Your task to perform on an android device: toggle location history Image 0: 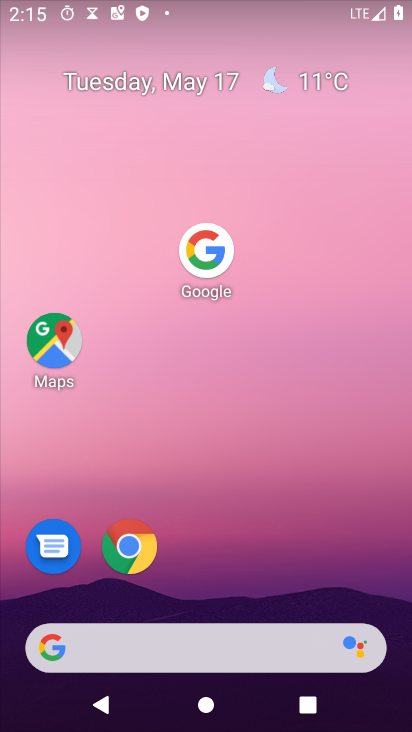
Step 0: press home button
Your task to perform on an android device: toggle location history Image 1: 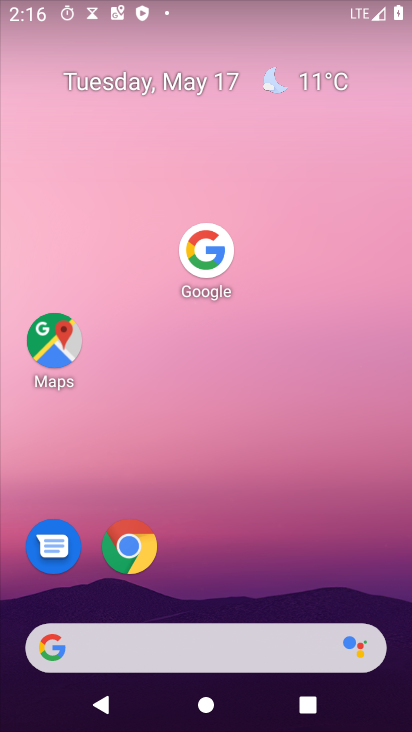
Step 1: click (53, 354)
Your task to perform on an android device: toggle location history Image 2: 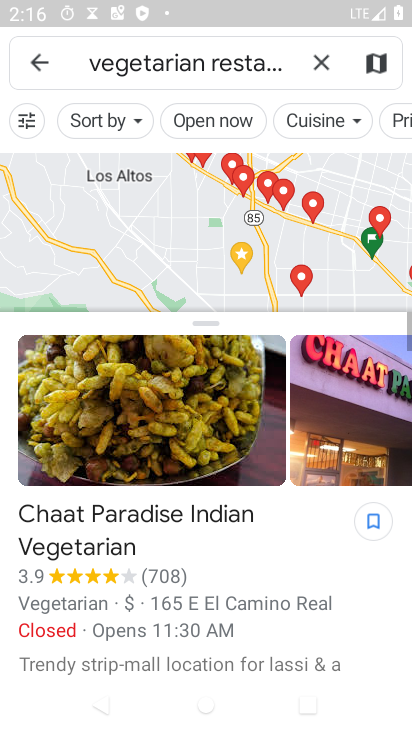
Step 2: click (43, 59)
Your task to perform on an android device: toggle location history Image 3: 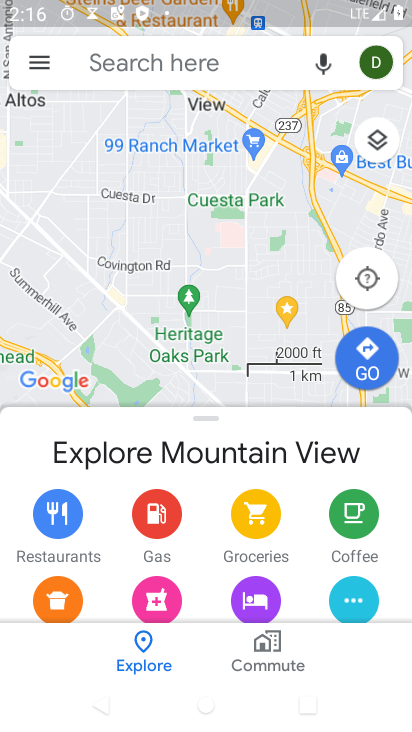
Step 3: click (38, 59)
Your task to perform on an android device: toggle location history Image 4: 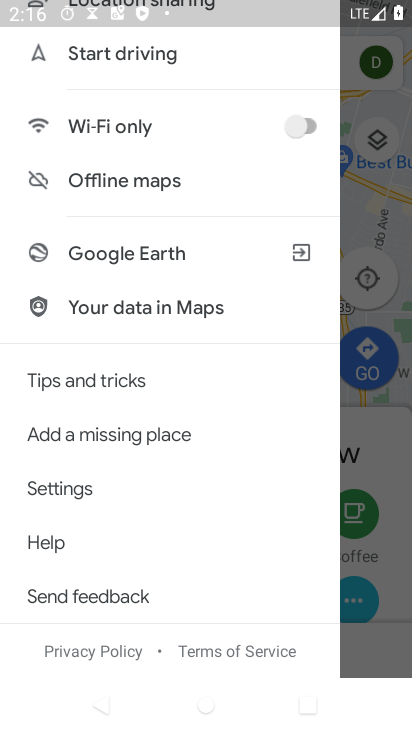
Step 4: drag from (220, 123) to (202, 594)
Your task to perform on an android device: toggle location history Image 5: 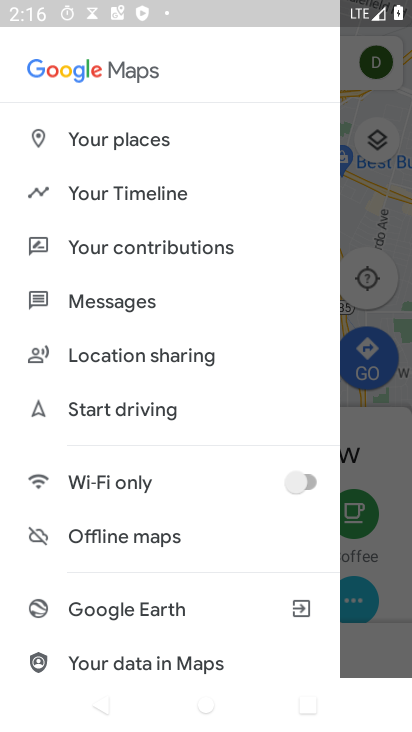
Step 5: click (115, 194)
Your task to perform on an android device: toggle location history Image 6: 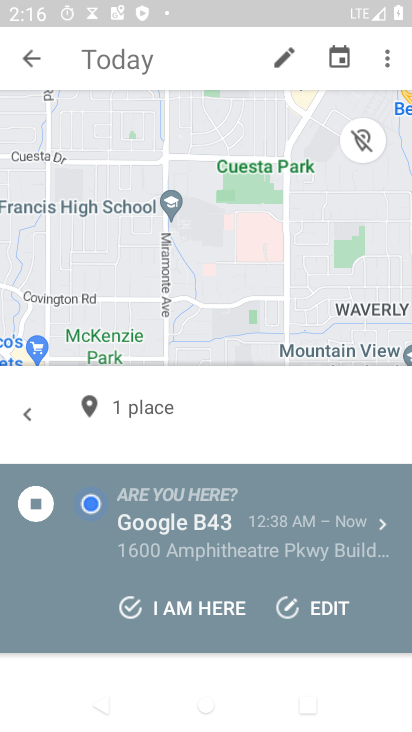
Step 6: click (390, 62)
Your task to perform on an android device: toggle location history Image 7: 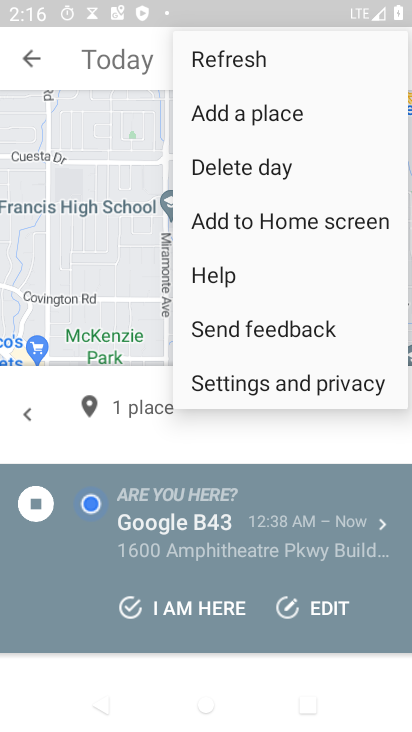
Step 7: click (230, 384)
Your task to perform on an android device: toggle location history Image 8: 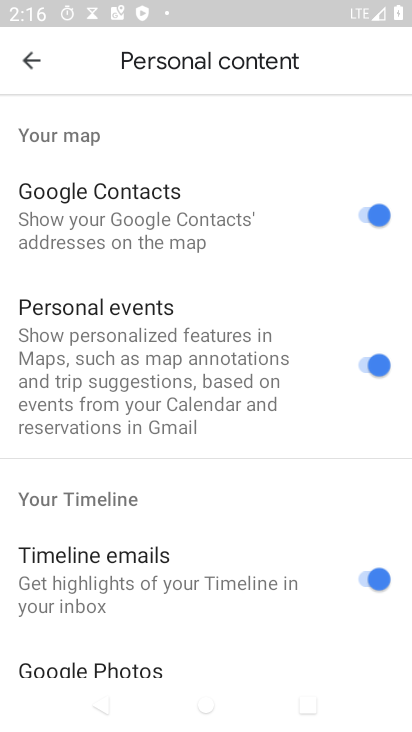
Step 8: drag from (207, 639) to (355, 149)
Your task to perform on an android device: toggle location history Image 9: 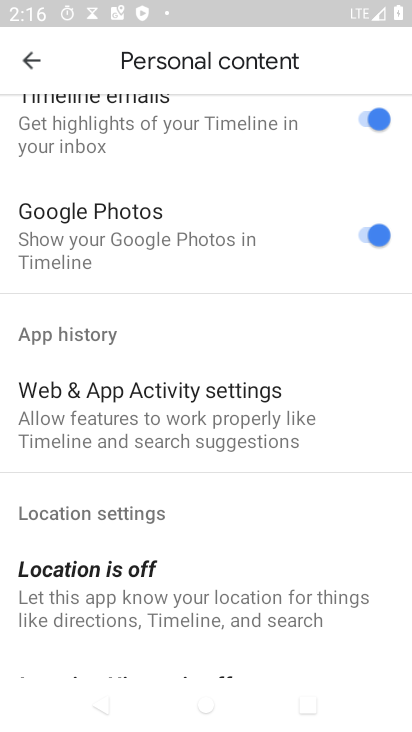
Step 9: drag from (173, 606) to (248, 183)
Your task to perform on an android device: toggle location history Image 10: 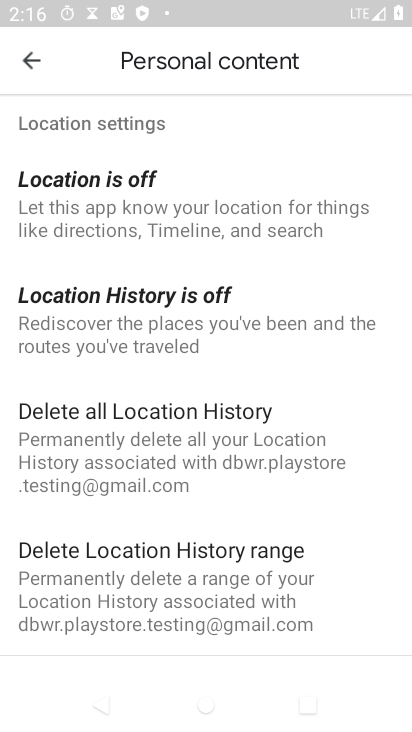
Step 10: click (167, 639)
Your task to perform on an android device: toggle location history Image 11: 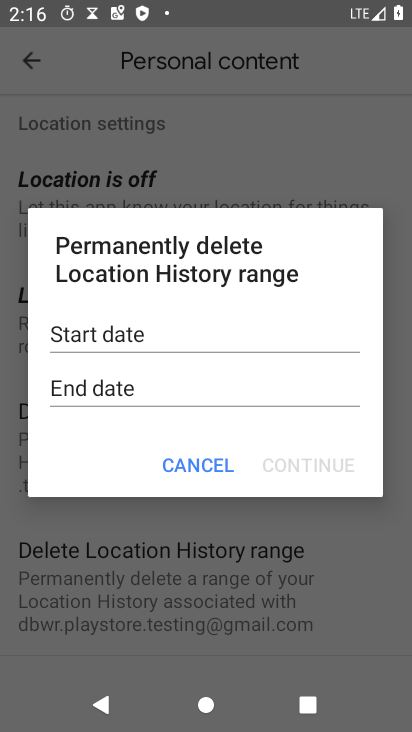
Step 11: click (202, 467)
Your task to perform on an android device: toggle location history Image 12: 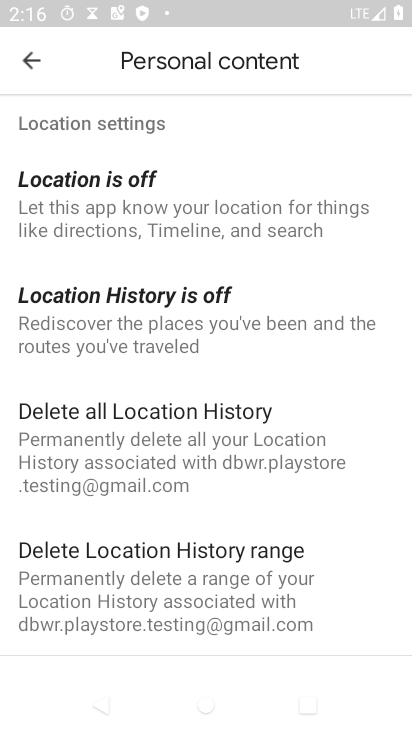
Step 12: click (108, 299)
Your task to perform on an android device: toggle location history Image 13: 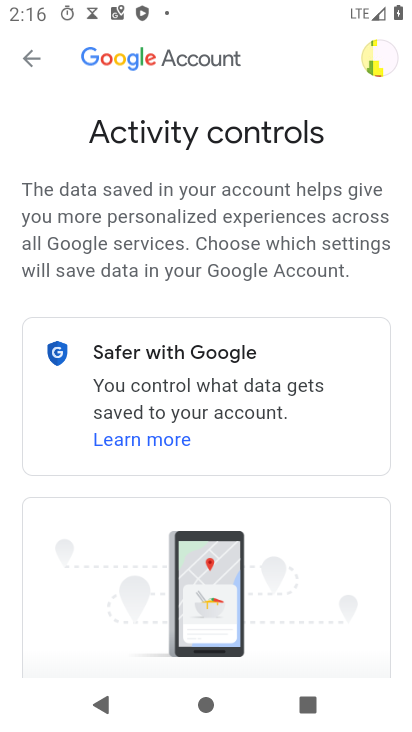
Step 13: drag from (289, 589) to (309, 13)
Your task to perform on an android device: toggle location history Image 14: 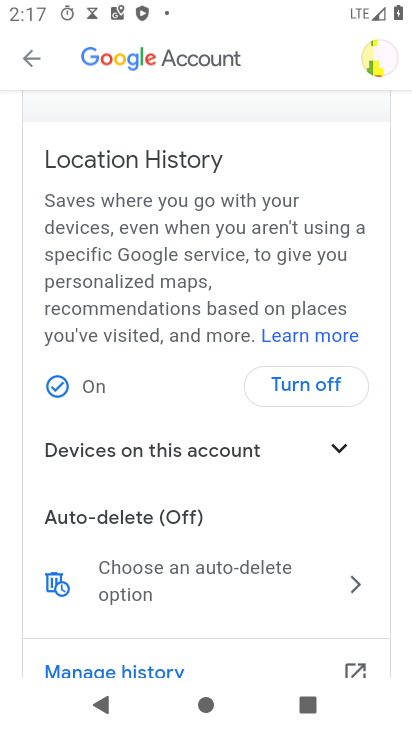
Step 14: click (314, 389)
Your task to perform on an android device: toggle location history Image 15: 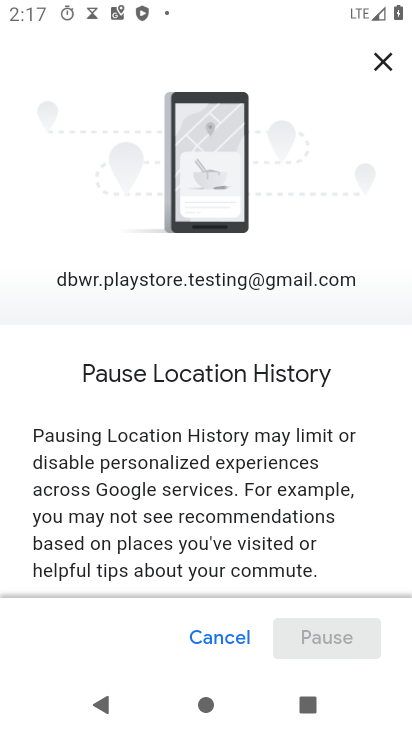
Step 15: drag from (249, 537) to (348, 41)
Your task to perform on an android device: toggle location history Image 16: 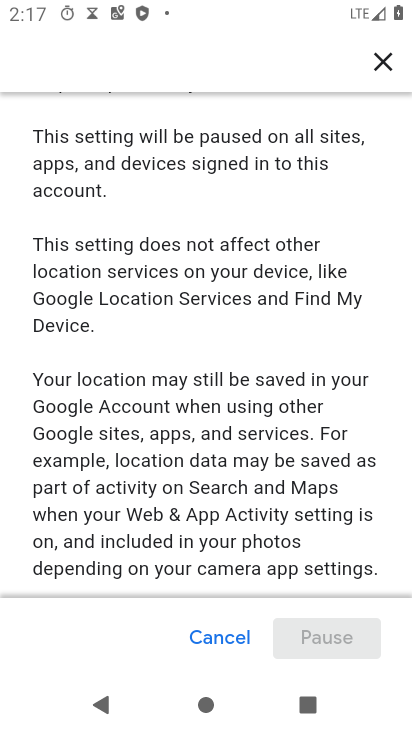
Step 16: drag from (285, 545) to (346, 25)
Your task to perform on an android device: toggle location history Image 17: 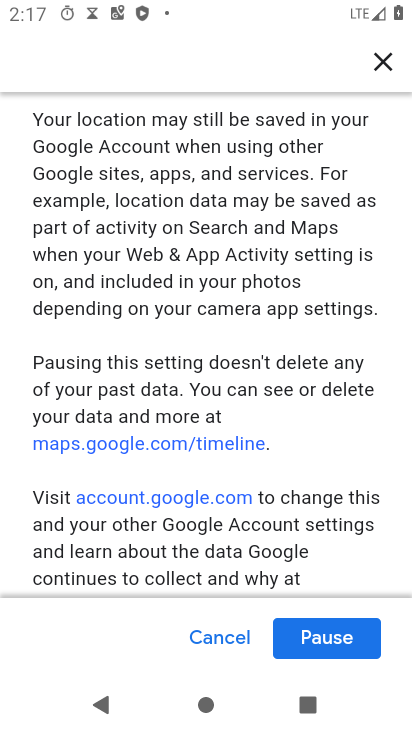
Step 17: click (335, 642)
Your task to perform on an android device: toggle location history Image 18: 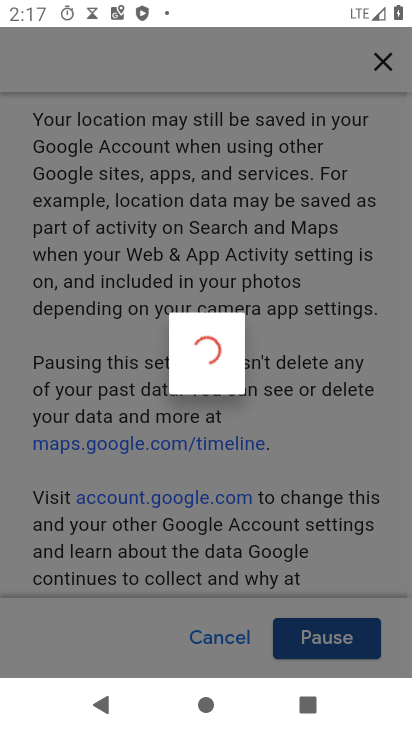
Step 18: click (336, 646)
Your task to perform on an android device: toggle location history Image 19: 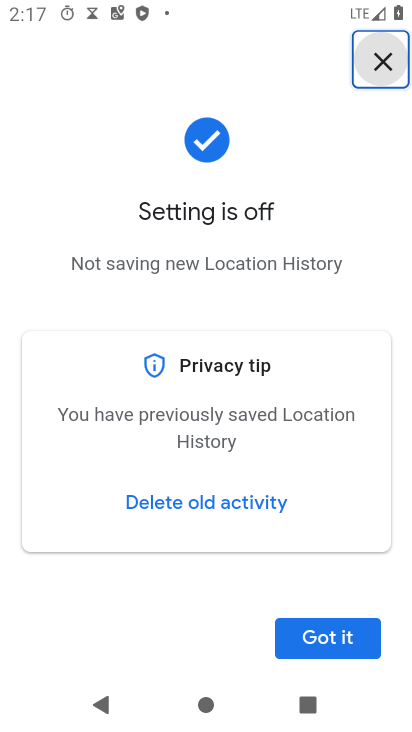
Step 19: task complete